Your task to perform on an android device: Open internet settings Image 0: 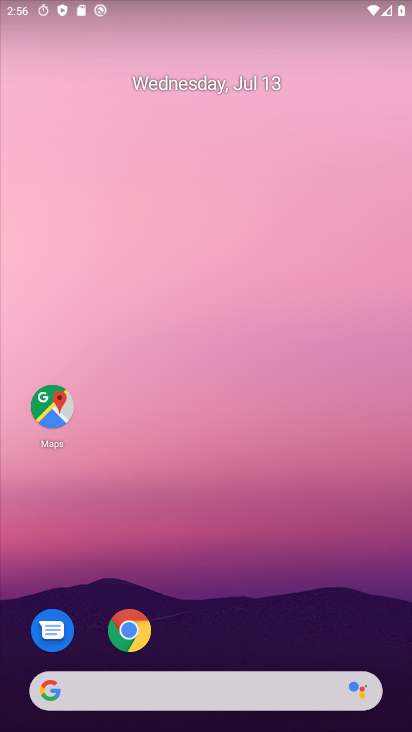
Step 0: drag from (46, 609) to (162, 28)
Your task to perform on an android device: Open internet settings Image 1: 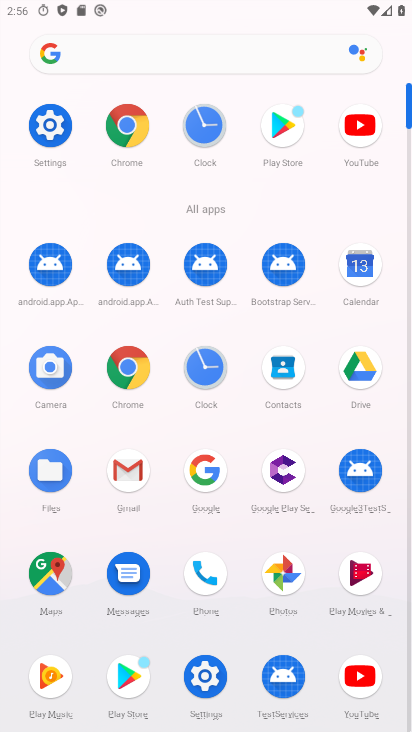
Step 1: click (210, 701)
Your task to perform on an android device: Open internet settings Image 2: 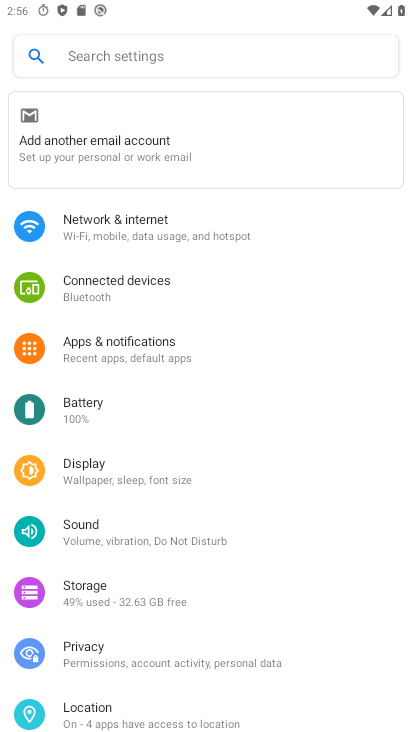
Step 2: click (139, 231)
Your task to perform on an android device: Open internet settings Image 3: 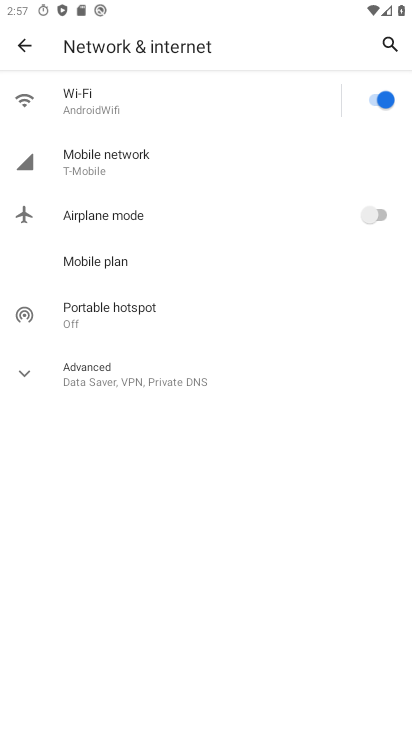
Step 3: task complete